Your task to perform on an android device: Open accessibility settings Image 0: 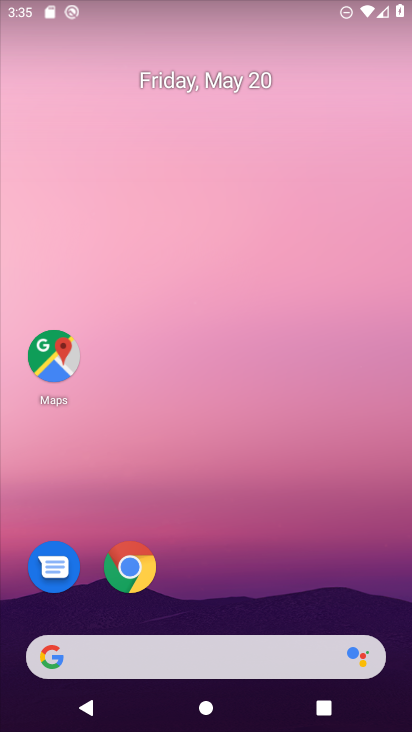
Step 0: drag from (230, 724) to (230, 160)
Your task to perform on an android device: Open accessibility settings Image 1: 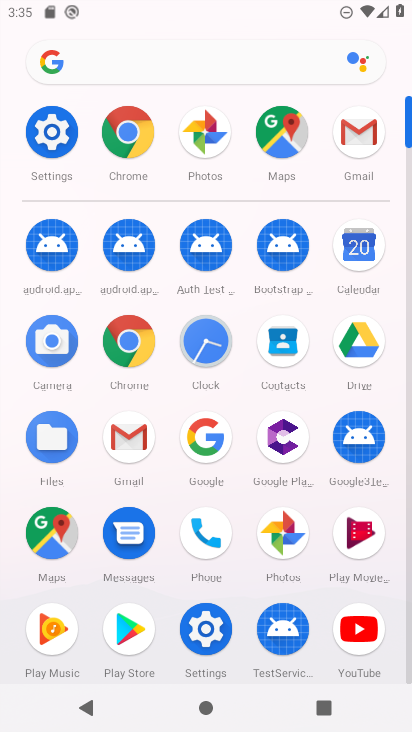
Step 1: click (54, 131)
Your task to perform on an android device: Open accessibility settings Image 2: 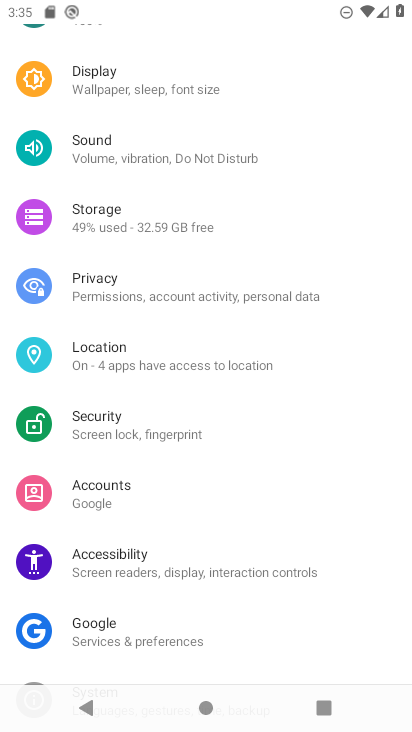
Step 2: click (132, 556)
Your task to perform on an android device: Open accessibility settings Image 3: 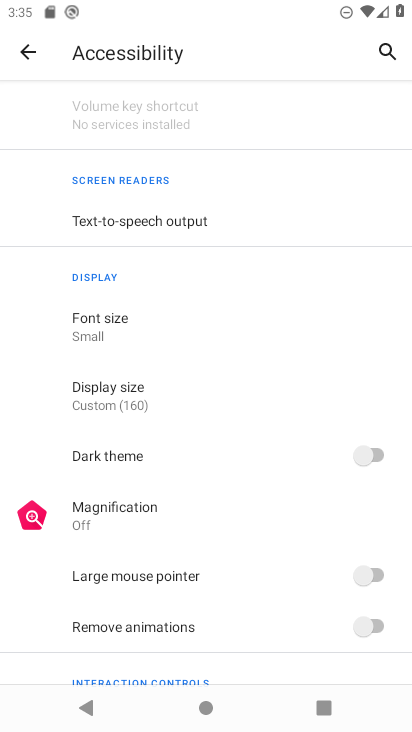
Step 3: task complete